Your task to perform on an android device: Show me recent news Image 0: 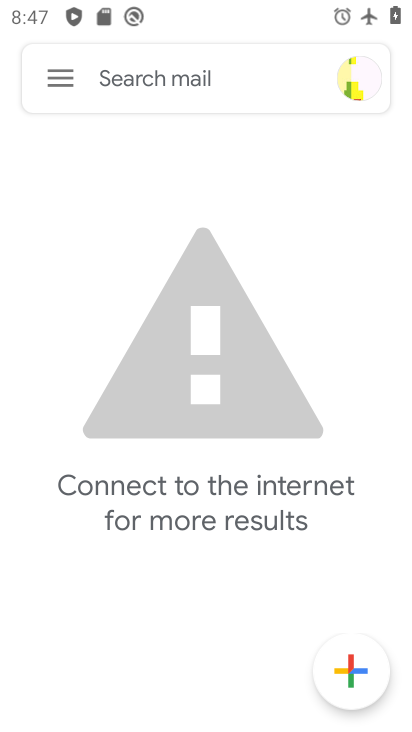
Step 0: press home button
Your task to perform on an android device: Show me recent news Image 1: 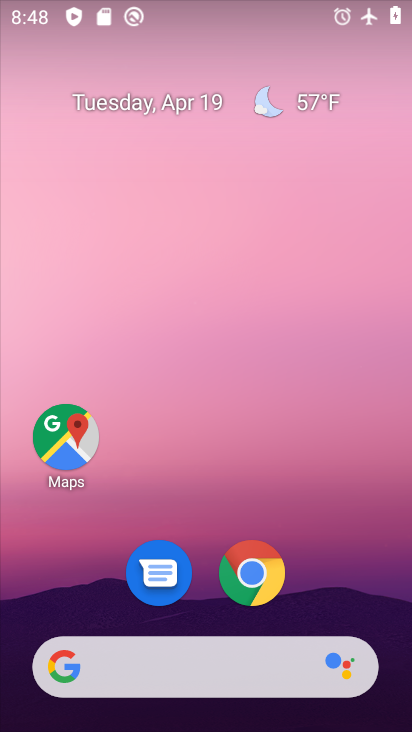
Step 1: drag from (134, 402) to (407, 346)
Your task to perform on an android device: Show me recent news Image 2: 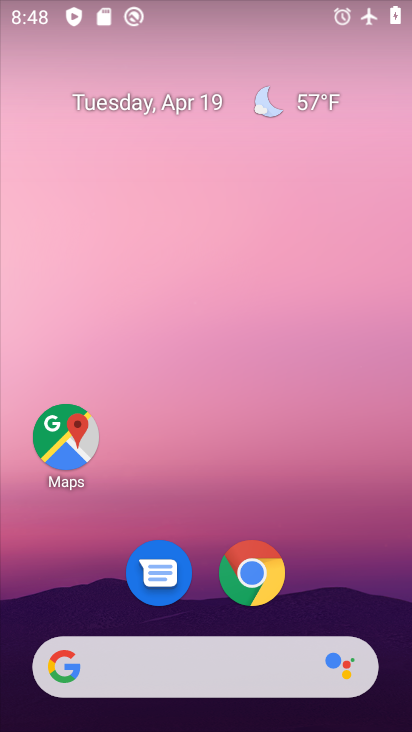
Step 2: drag from (19, 311) to (409, 305)
Your task to perform on an android device: Show me recent news Image 3: 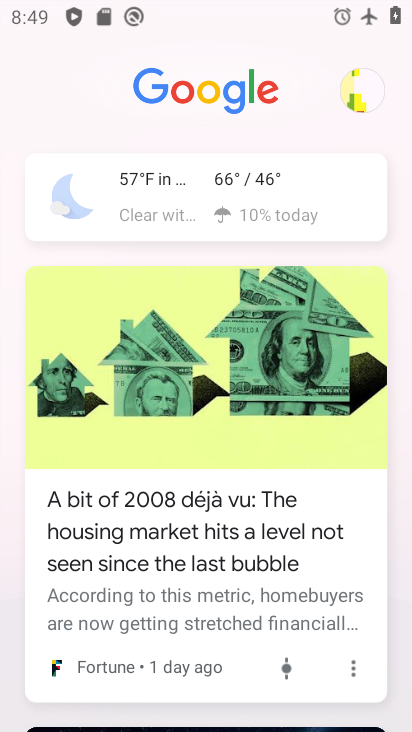
Step 3: drag from (237, 539) to (288, 216)
Your task to perform on an android device: Show me recent news Image 4: 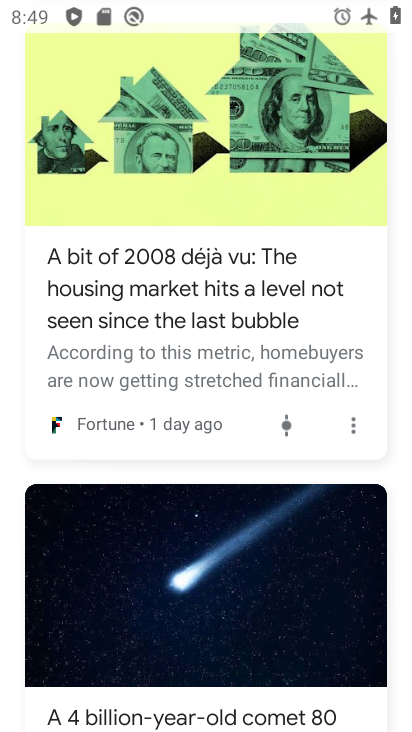
Step 4: drag from (259, 561) to (403, 126)
Your task to perform on an android device: Show me recent news Image 5: 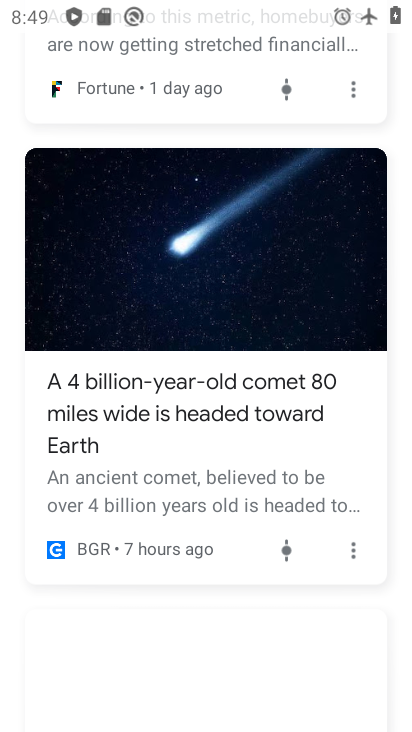
Step 5: drag from (227, 619) to (383, 233)
Your task to perform on an android device: Show me recent news Image 6: 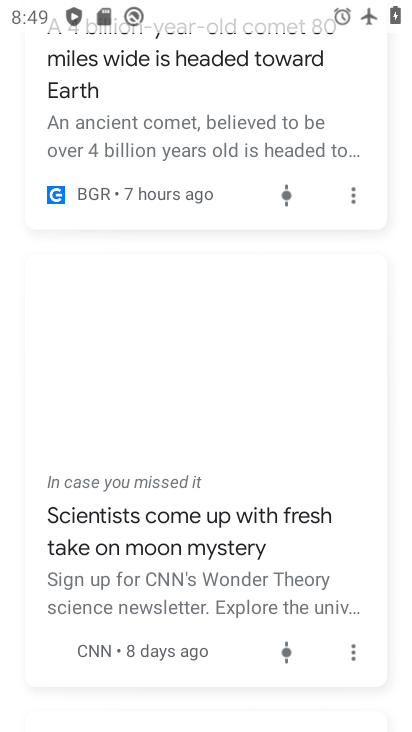
Step 6: drag from (287, 212) to (226, 674)
Your task to perform on an android device: Show me recent news Image 7: 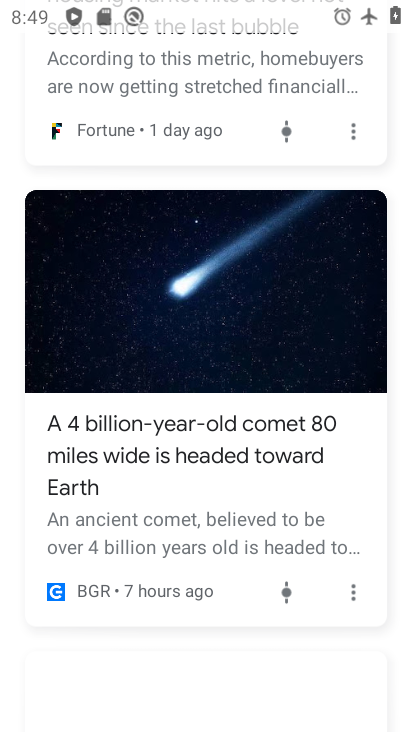
Step 7: click (93, 584)
Your task to perform on an android device: Show me recent news Image 8: 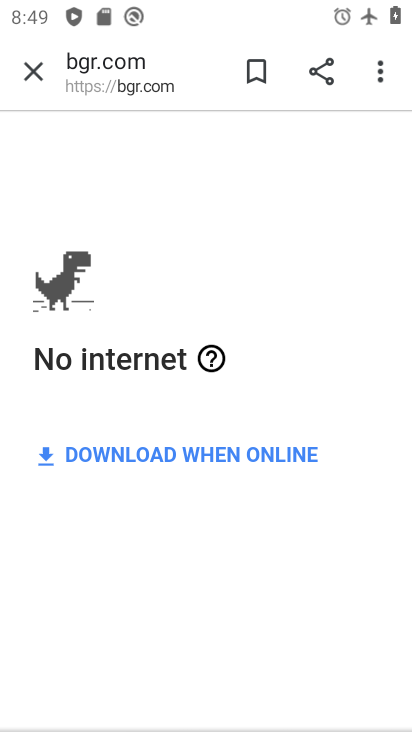
Step 8: task complete